Your task to perform on an android device: find snoozed emails in the gmail app Image 0: 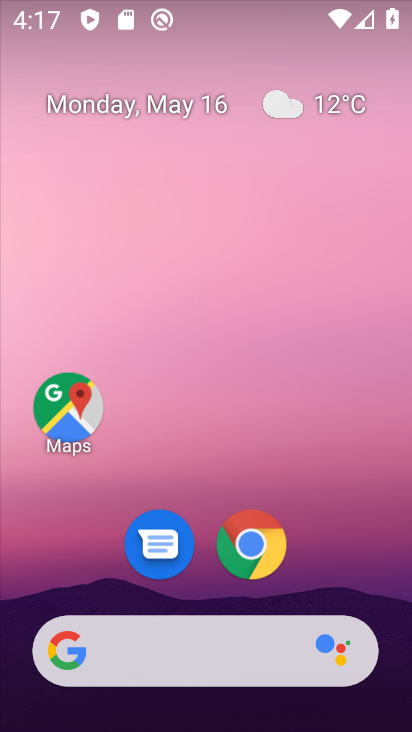
Step 0: drag from (326, 553) to (249, 109)
Your task to perform on an android device: find snoozed emails in the gmail app Image 1: 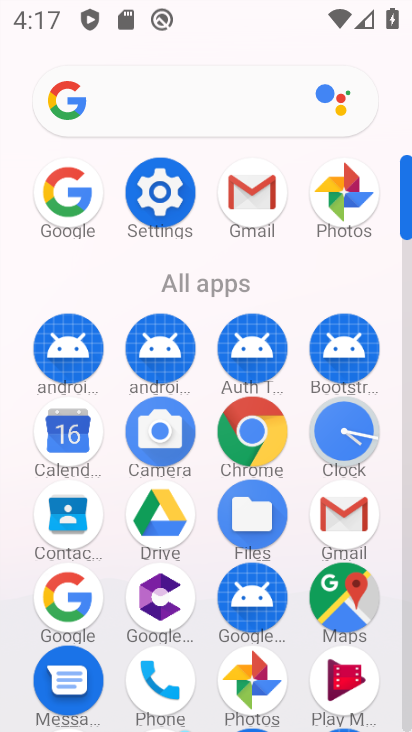
Step 1: click (251, 193)
Your task to perform on an android device: find snoozed emails in the gmail app Image 2: 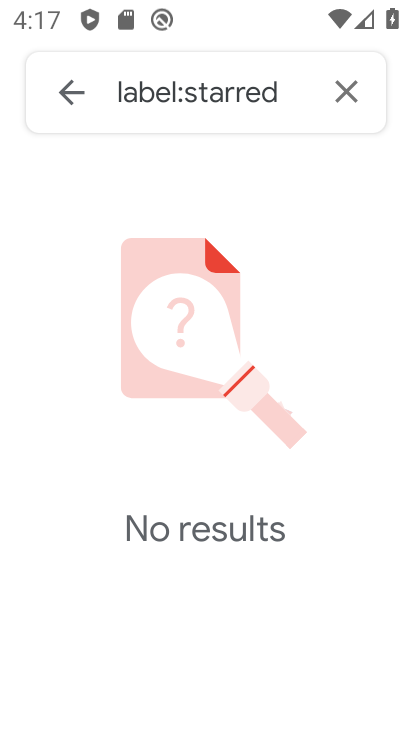
Step 2: click (353, 94)
Your task to perform on an android device: find snoozed emails in the gmail app Image 3: 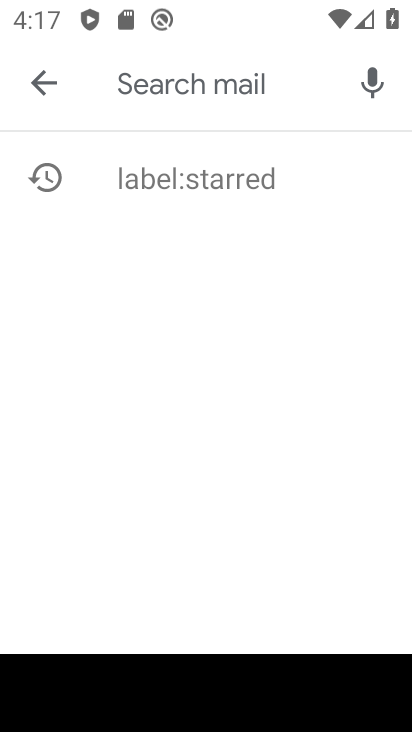
Step 3: press back button
Your task to perform on an android device: find snoozed emails in the gmail app Image 4: 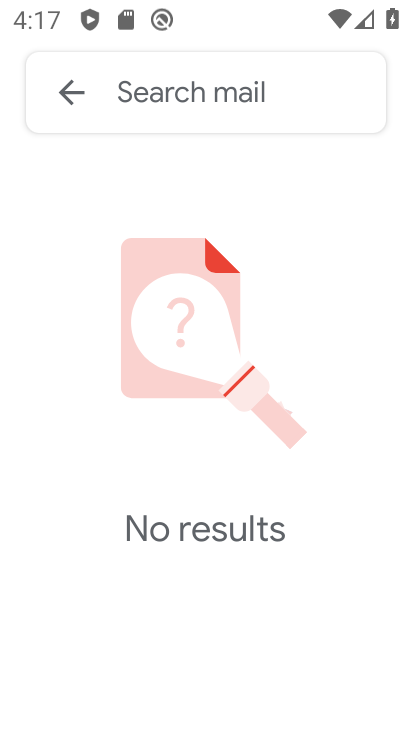
Step 4: press back button
Your task to perform on an android device: find snoozed emails in the gmail app Image 5: 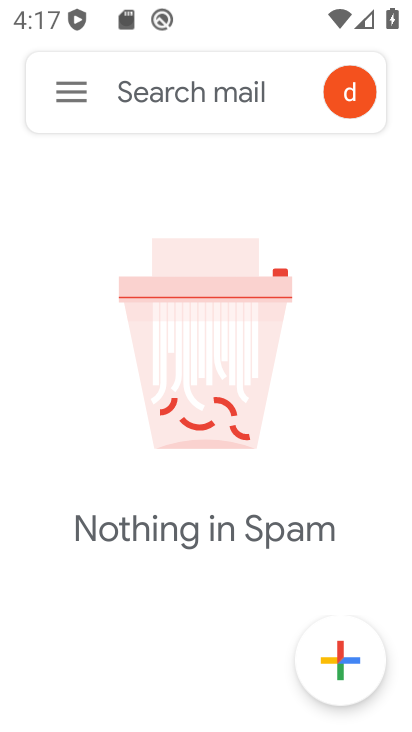
Step 5: click (71, 93)
Your task to perform on an android device: find snoozed emails in the gmail app Image 6: 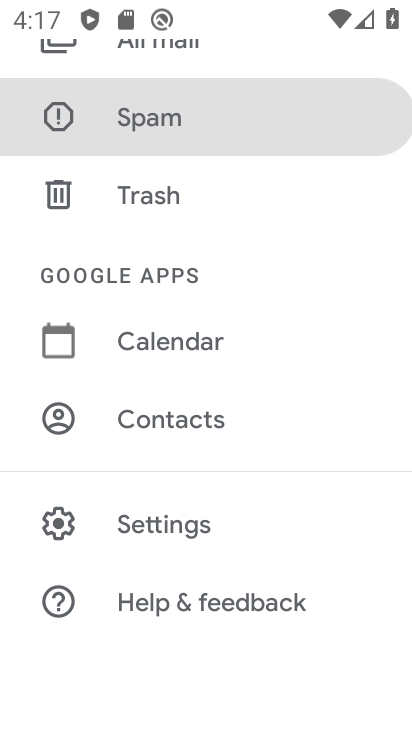
Step 6: drag from (234, 283) to (298, 407)
Your task to perform on an android device: find snoozed emails in the gmail app Image 7: 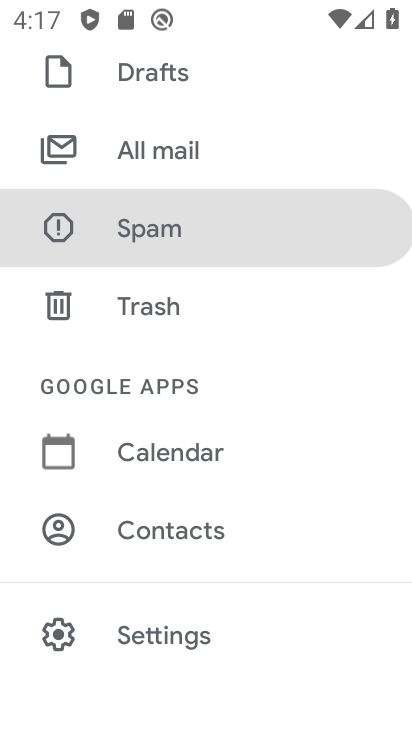
Step 7: drag from (254, 115) to (254, 391)
Your task to perform on an android device: find snoozed emails in the gmail app Image 8: 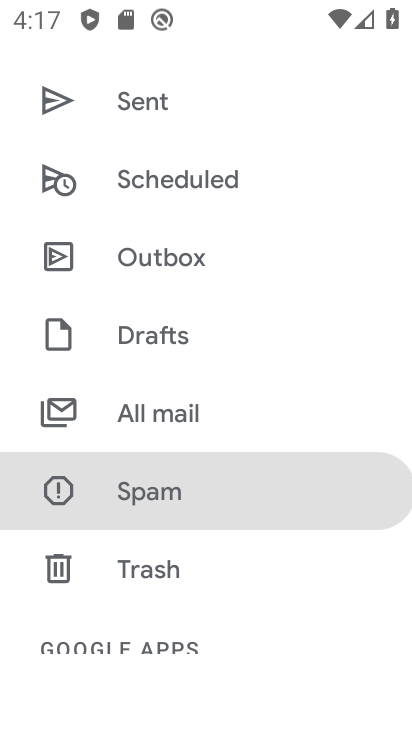
Step 8: drag from (236, 298) to (242, 403)
Your task to perform on an android device: find snoozed emails in the gmail app Image 9: 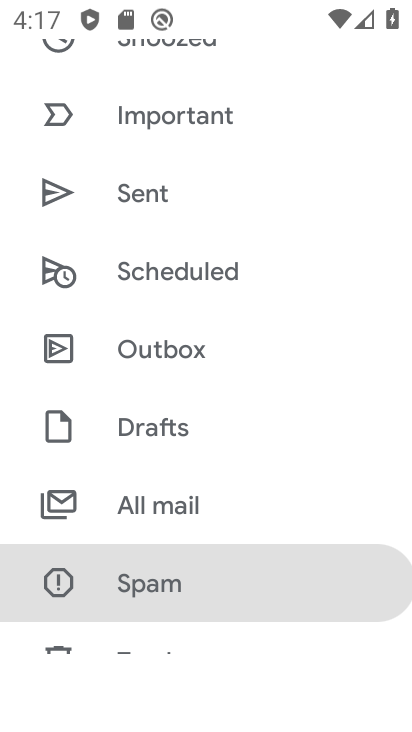
Step 9: drag from (191, 208) to (171, 411)
Your task to perform on an android device: find snoozed emails in the gmail app Image 10: 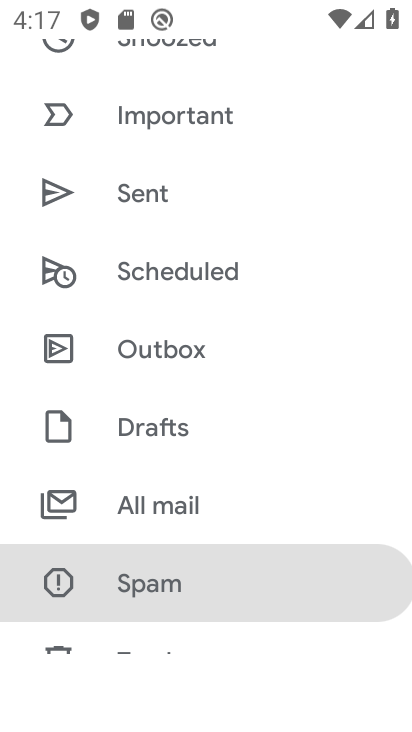
Step 10: drag from (182, 99) to (231, 380)
Your task to perform on an android device: find snoozed emails in the gmail app Image 11: 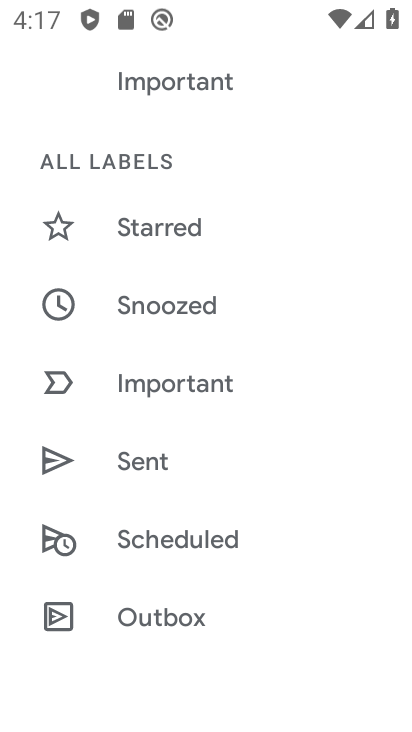
Step 11: click (199, 302)
Your task to perform on an android device: find snoozed emails in the gmail app Image 12: 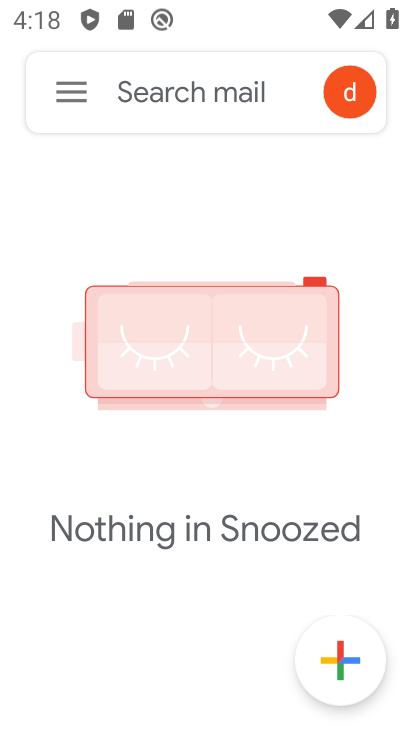
Step 12: task complete